Your task to perform on an android device: Go to calendar. Show me events next week Image 0: 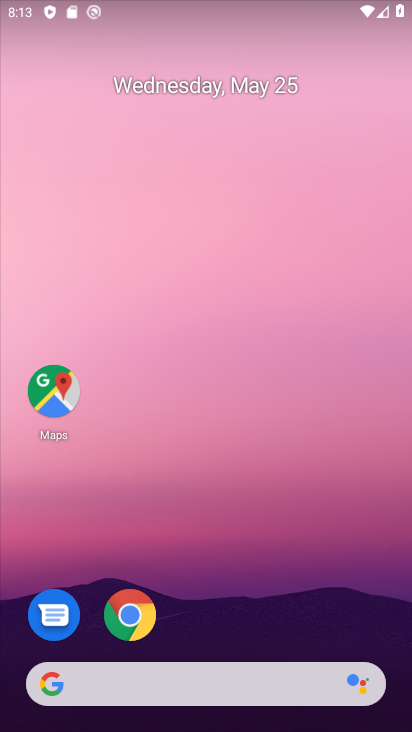
Step 0: drag from (219, 642) to (154, 238)
Your task to perform on an android device: Go to calendar. Show me events next week Image 1: 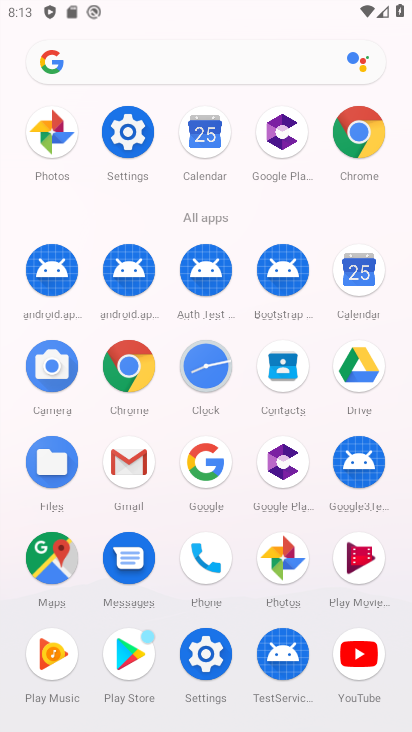
Step 1: click (346, 289)
Your task to perform on an android device: Go to calendar. Show me events next week Image 2: 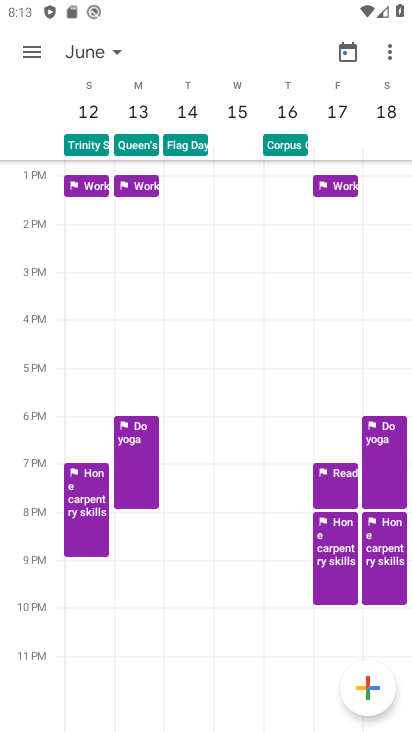
Step 2: click (343, 51)
Your task to perform on an android device: Go to calendar. Show me events next week Image 3: 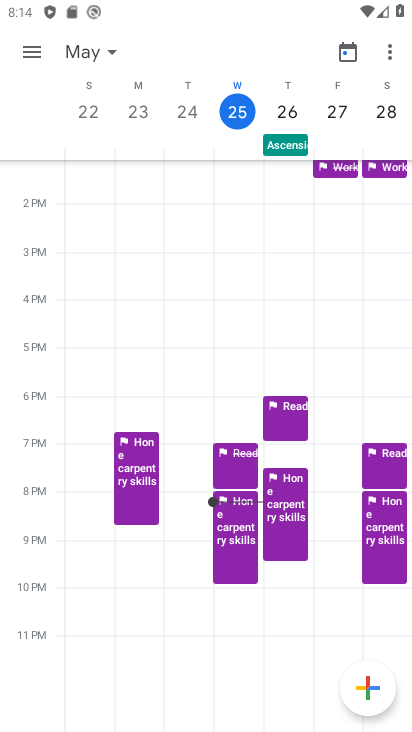
Step 3: task complete